Your task to perform on an android device: Open accessibility settings Image 0: 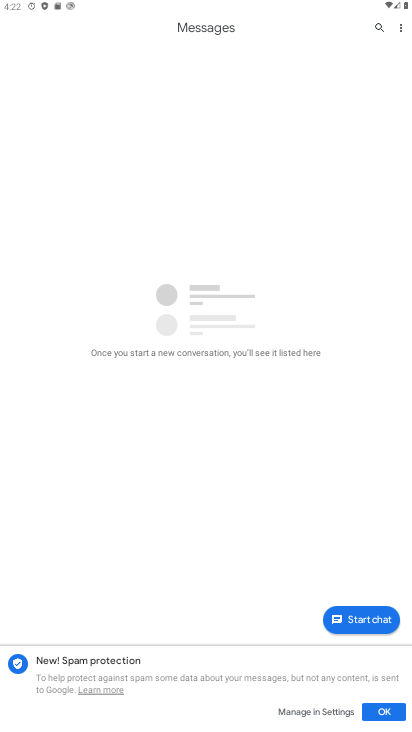
Step 0: press back button
Your task to perform on an android device: Open accessibility settings Image 1: 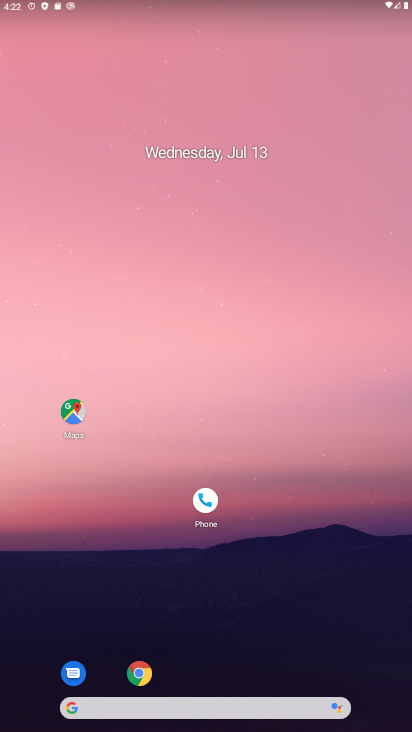
Step 1: drag from (314, 662) to (209, 186)
Your task to perform on an android device: Open accessibility settings Image 2: 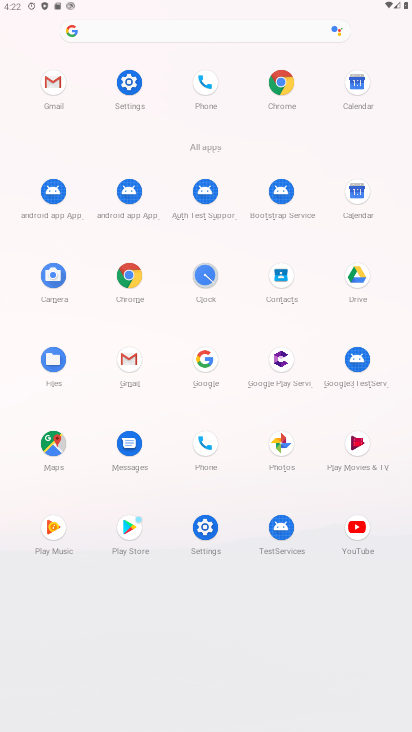
Step 2: click (208, 520)
Your task to perform on an android device: Open accessibility settings Image 3: 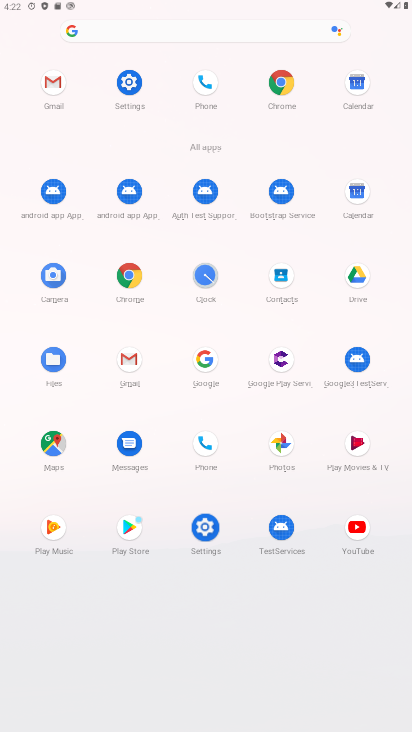
Step 3: click (208, 520)
Your task to perform on an android device: Open accessibility settings Image 4: 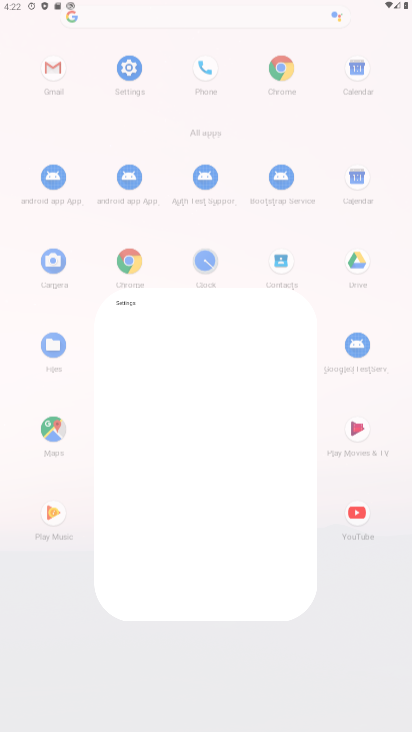
Step 4: click (207, 521)
Your task to perform on an android device: Open accessibility settings Image 5: 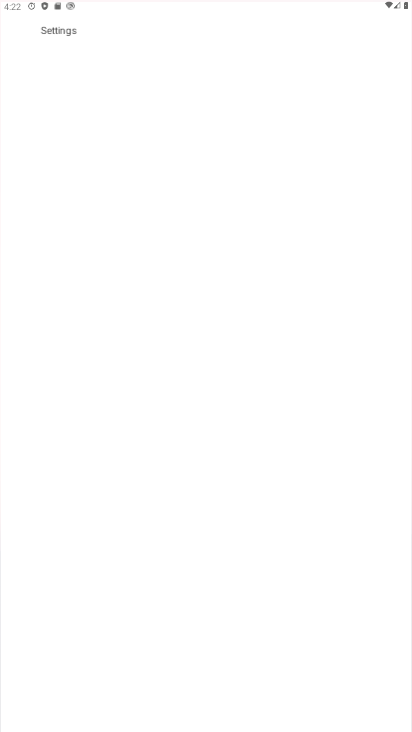
Step 5: click (207, 521)
Your task to perform on an android device: Open accessibility settings Image 6: 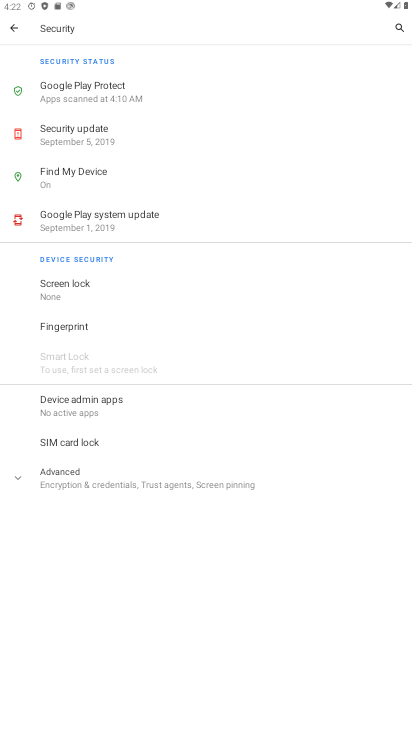
Step 6: click (17, 24)
Your task to perform on an android device: Open accessibility settings Image 7: 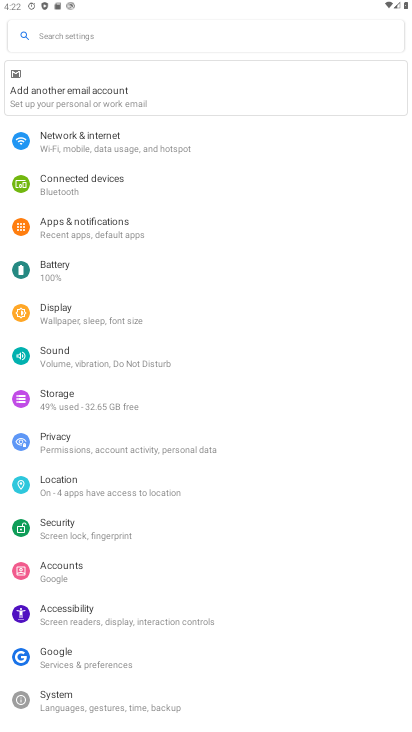
Step 7: click (85, 615)
Your task to perform on an android device: Open accessibility settings Image 8: 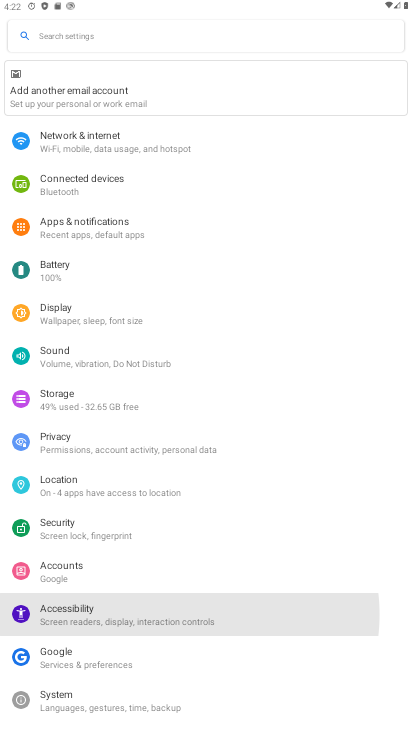
Step 8: click (85, 615)
Your task to perform on an android device: Open accessibility settings Image 9: 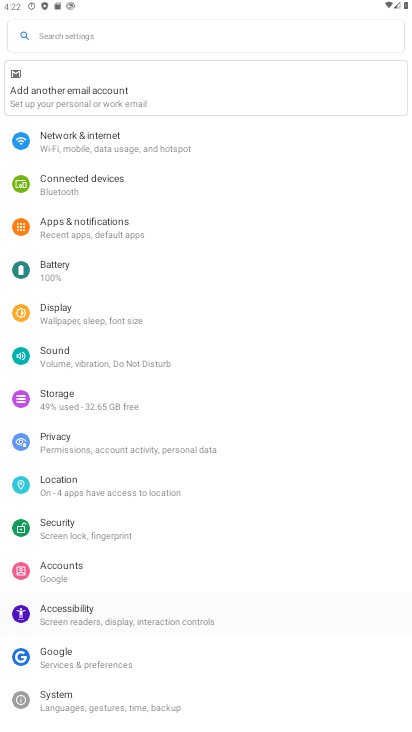
Step 9: click (85, 615)
Your task to perform on an android device: Open accessibility settings Image 10: 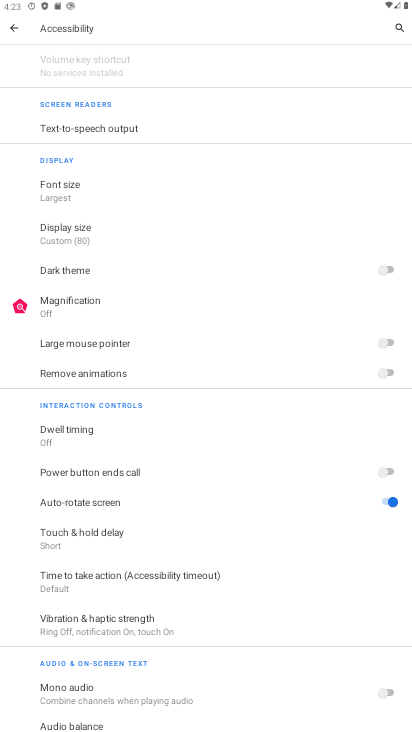
Step 10: task complete